Your task to perform on an android device: set the timer Image 0: 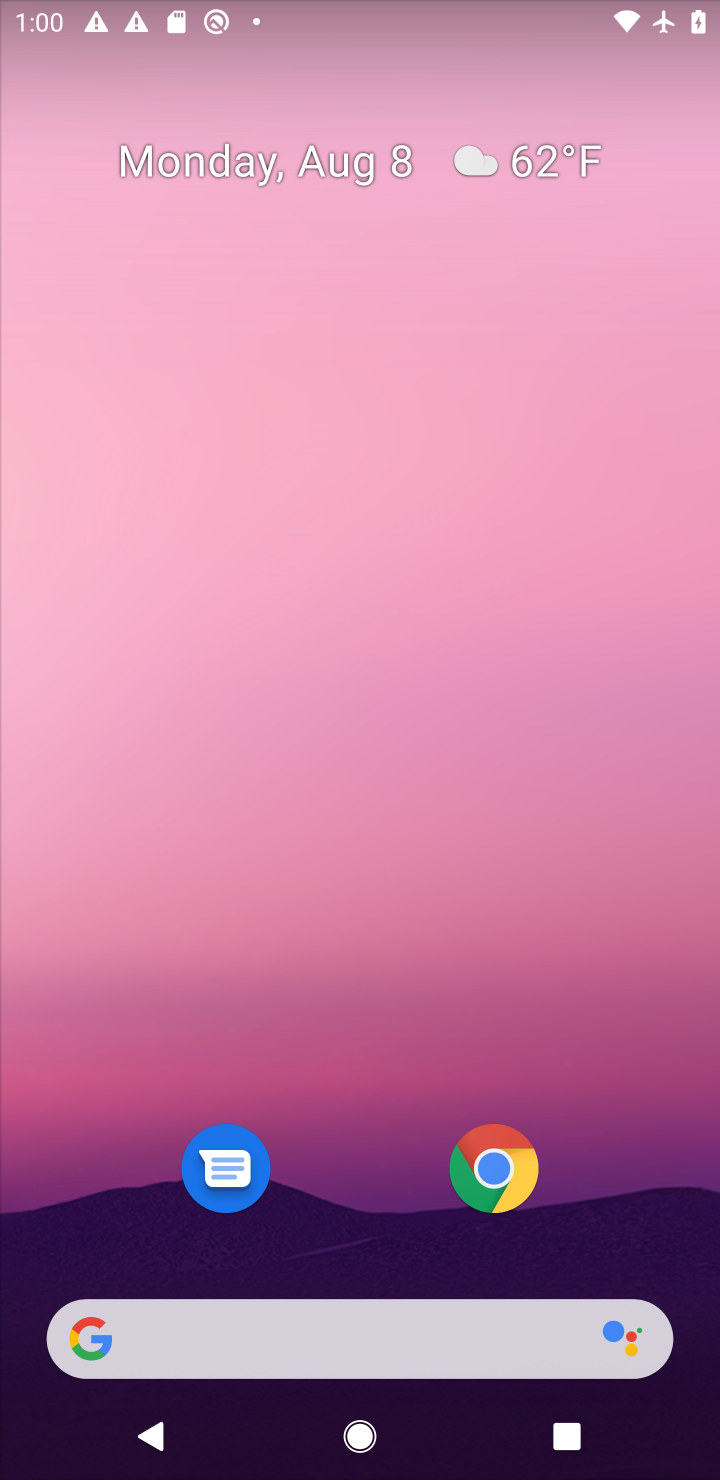
Step 0: drag from (373, 1284) to (302, 99)
Your task to perform on an android device: set the timer Image 1: 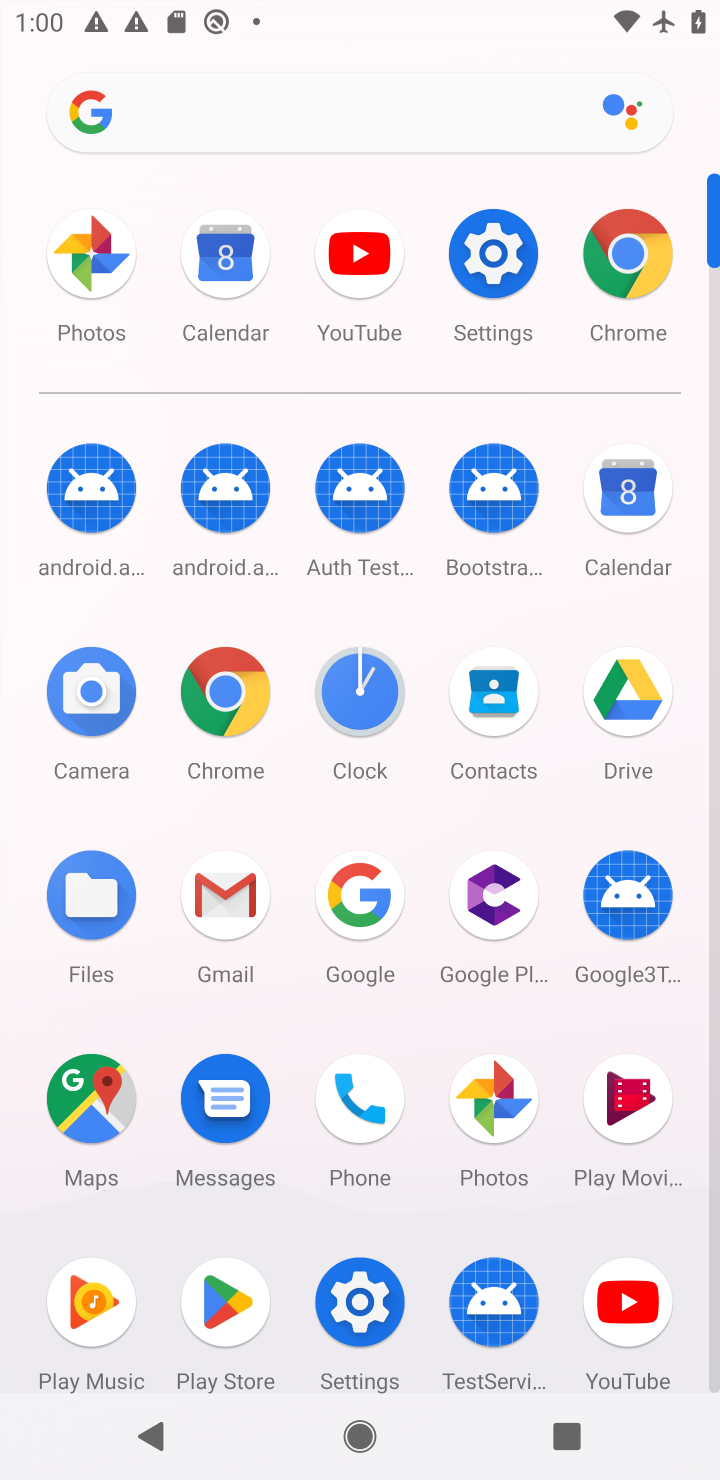
Step 1: click (353, 1292)
Your task to perform on an android device: set the timer Image 2: 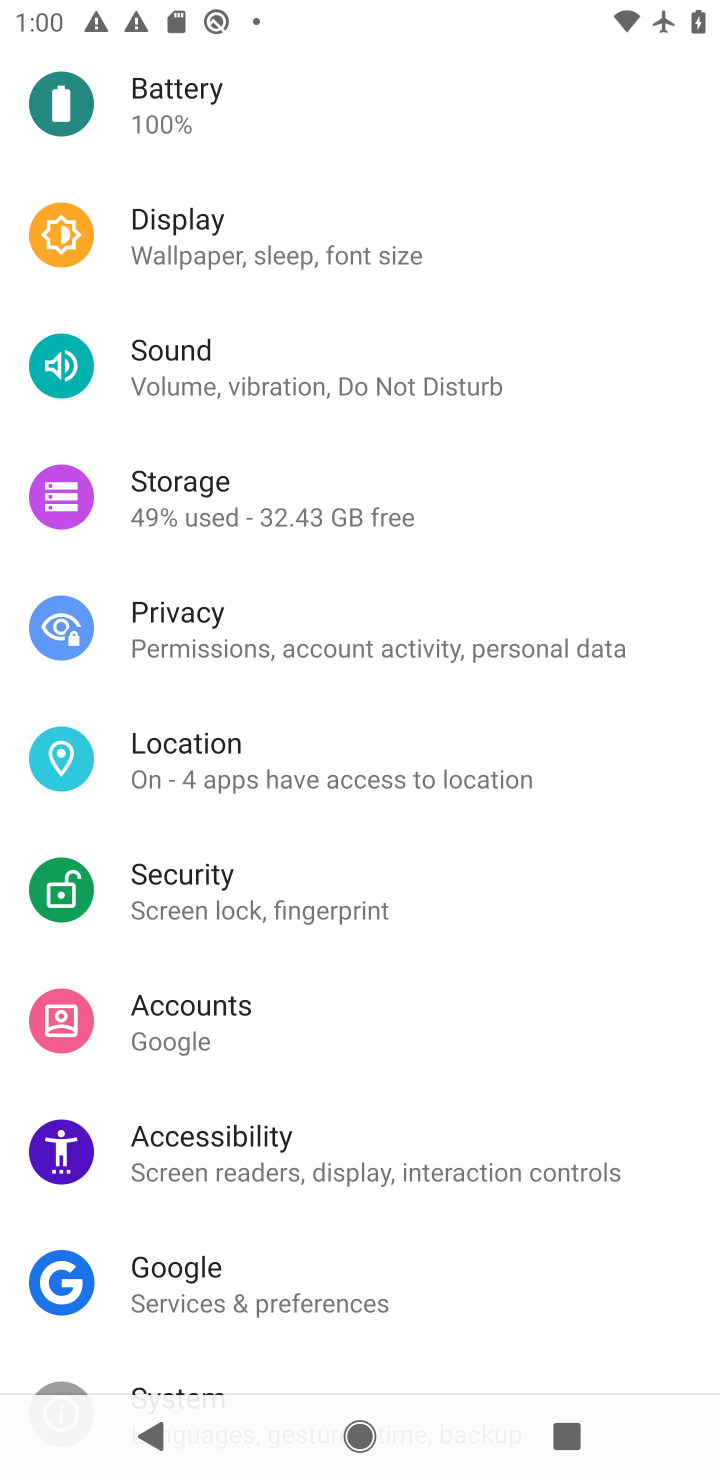
Step 2: task complete